Your task to perform on an android device: set the timer Image 0: 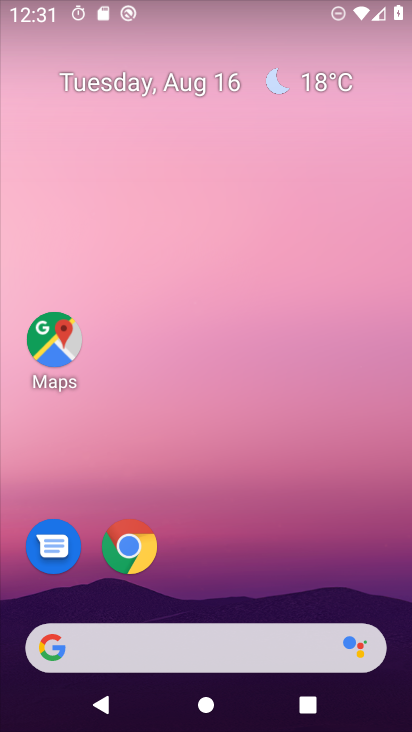
Step 0: drag from (225, 595) to (239, 6)
Your task to perform on an android device: set the timer Image 1: 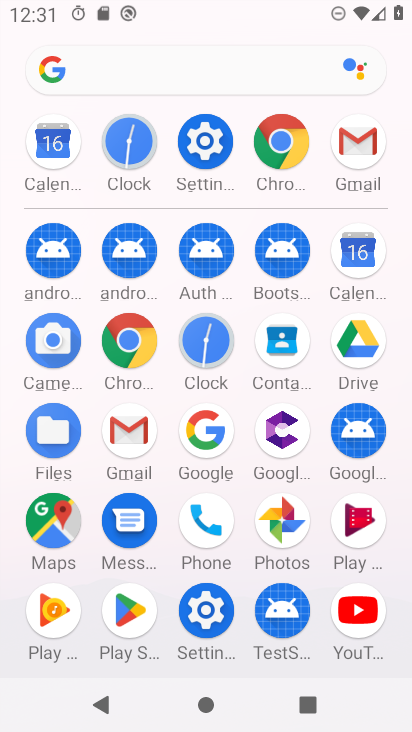
Step 1: click (209, 347)
Your task to perform on an android device: set the timer Image 2: 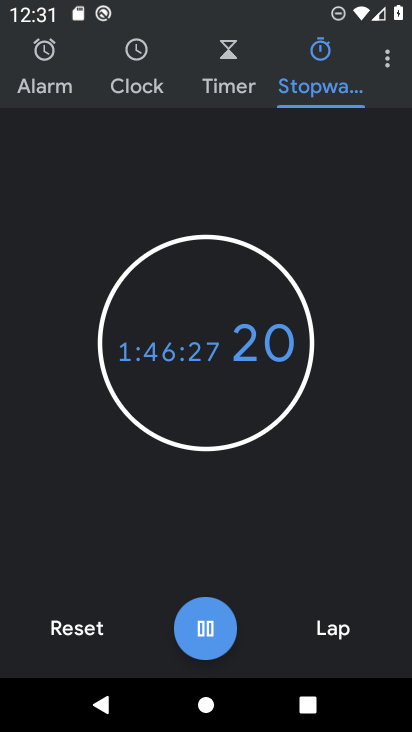
Step 2: click (227, 69)
Your task to perform on an android device: set the timer Image 3: 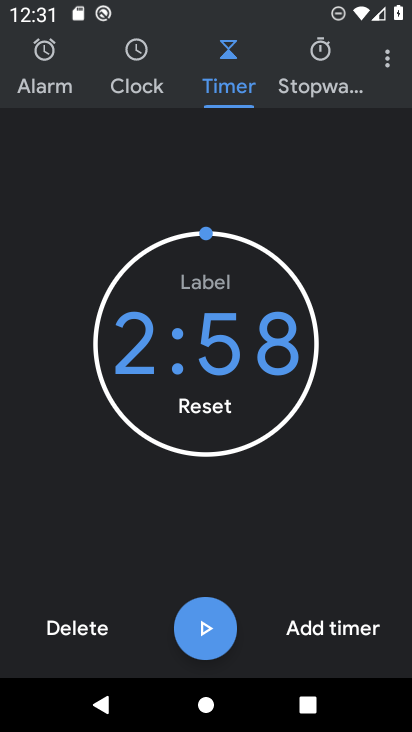
Step 3: click (319, 627)
Your task to perform on an android device: set the timer Image 4: 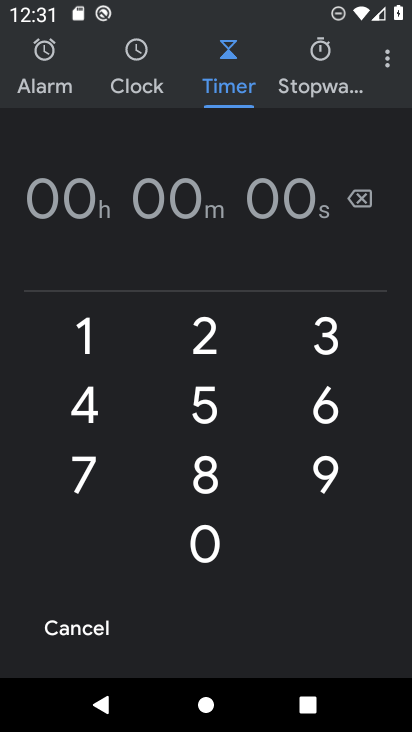
Step 4: click (203, 340)
Your task to perform on an android device: set the timer Image 5: 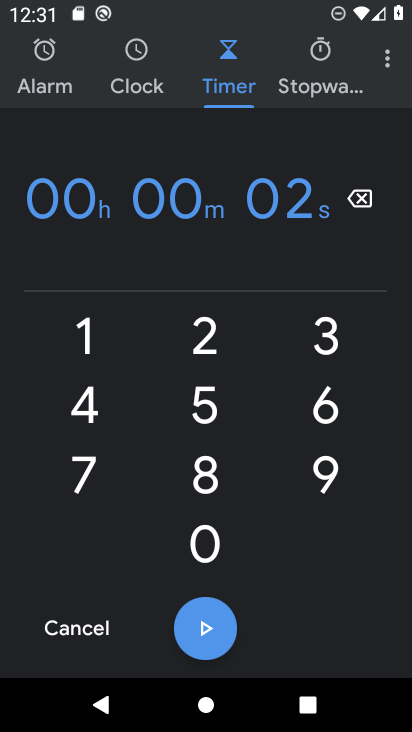
Step 5: click (205, 454)
Your task to perform on an android device: set the timer Image 6: 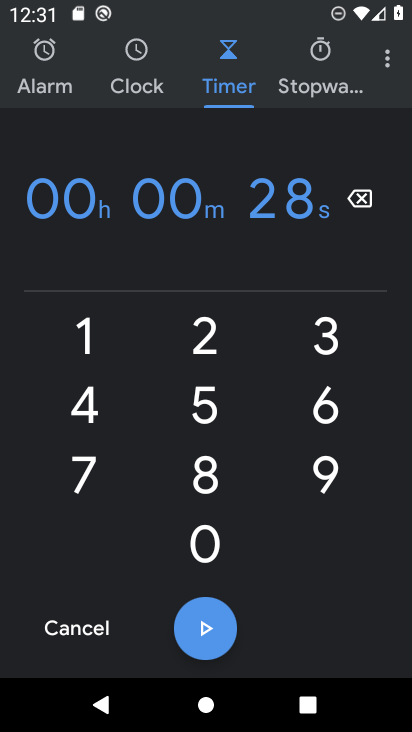
Step 6: click (205, 633)
Your task to perform on an android device: set the timer Image 7: 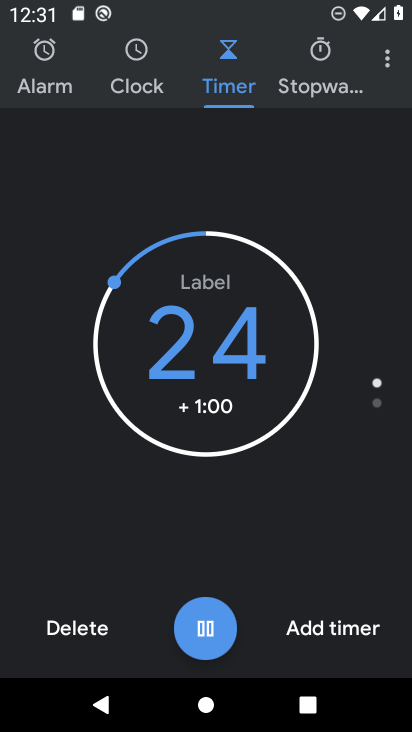
Step 7: task complete